Your task to perform on an android device: change keyboard looks Image 0: 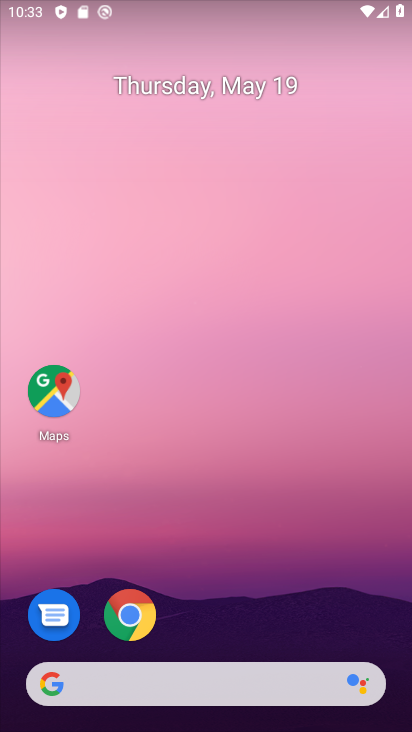
Step 0: click (218, 292)
Your task to perform on an android device: change keyboard looks Image 1: 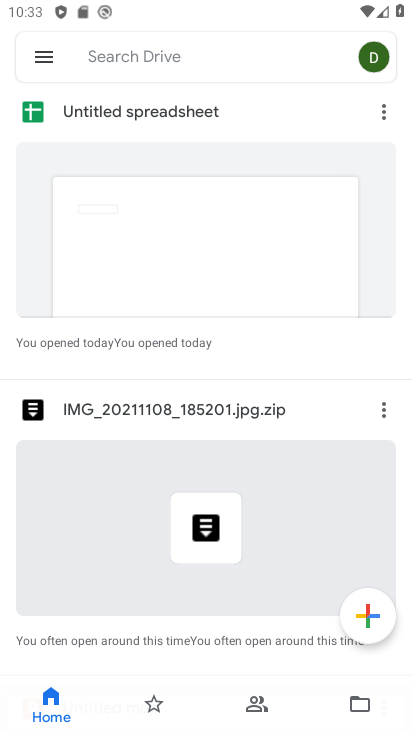
Step 1: press back button
Your task to perform on an android device: change keyboard looks Image 2: 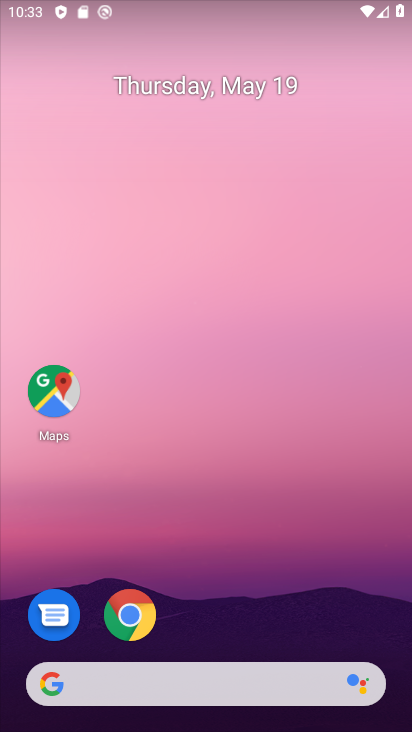
Step 2: drag from (290, 691) to (267, 317)
Your task to perform on an android device: change keyboard looks Image 3: 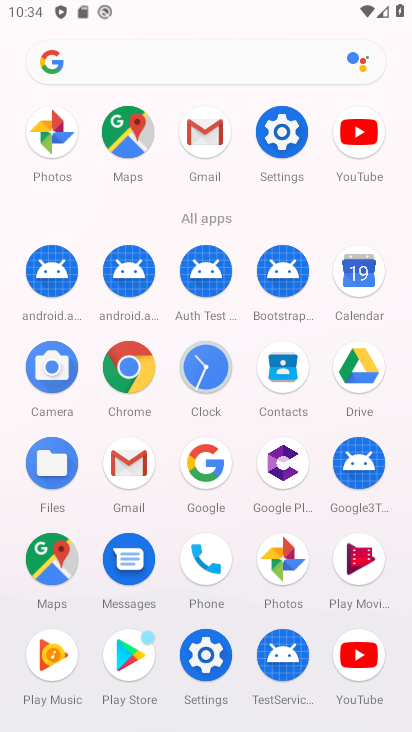
Step 3: click (270, 141)
Your task to perform on an android device: change keyboard looks Image 4: 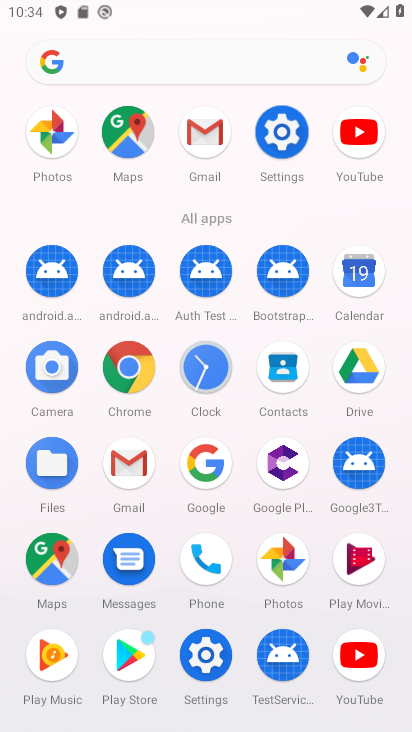
Step 4: click (271, 141)
Your task to perform on an android device: change keyboard looks Image 5: 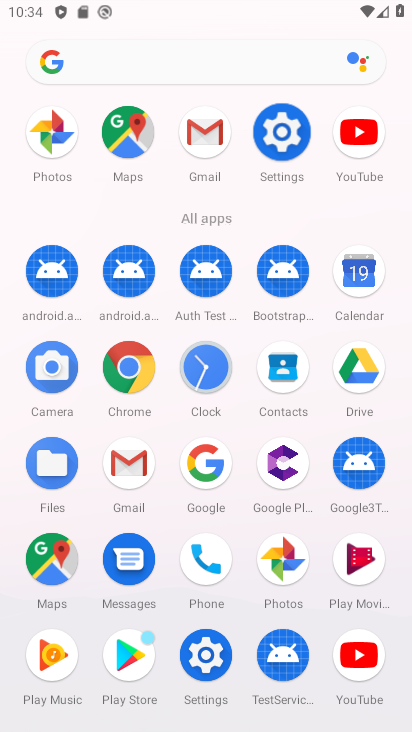
Step 5: click (272, 141)
Your task to perform on an android device: change keyboard looks Image 6: 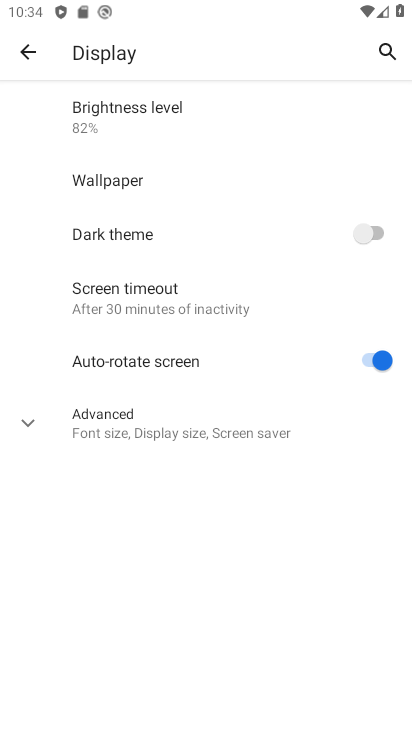
Step 6: click (28, 60)
Your task to perform on an android device: change keyboard looks Image 7: 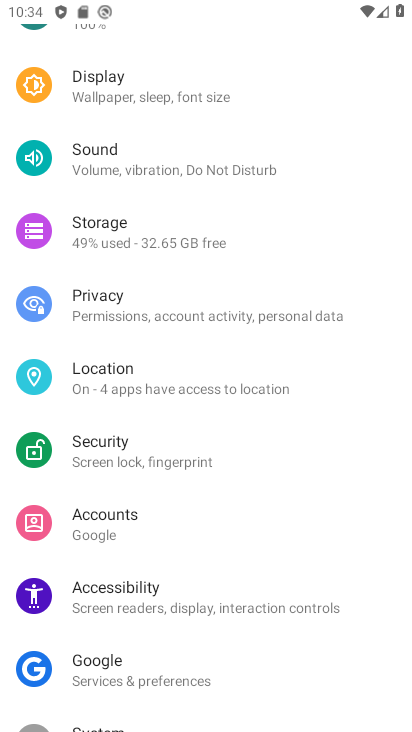
Step 7: drag from (120, 597) to (86, 20)
Your task to perform on an android device: change keyboard looks Image 8: 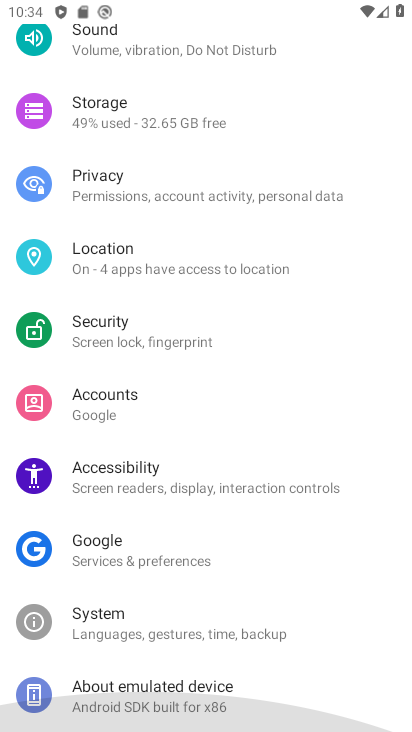
Step 8: drag from (136, 355) to (165, 28)
Your task to perform on an android device: change keyboard looks Image 9: 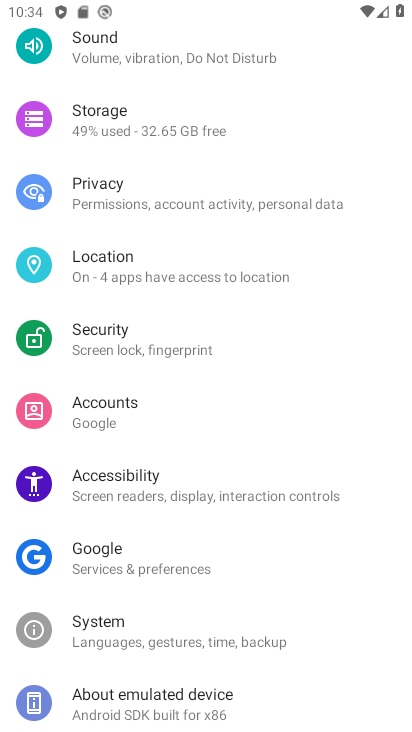
Step 9: click (128, 621)
Your task to perform on an android device: change keyboard looks Image 10: 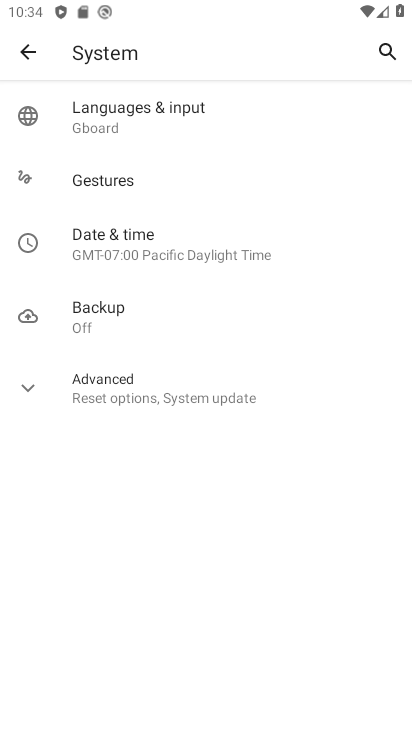
Step 10: click (106, 130)
Your task to perform on an android device: change keyboard looks Image 11: 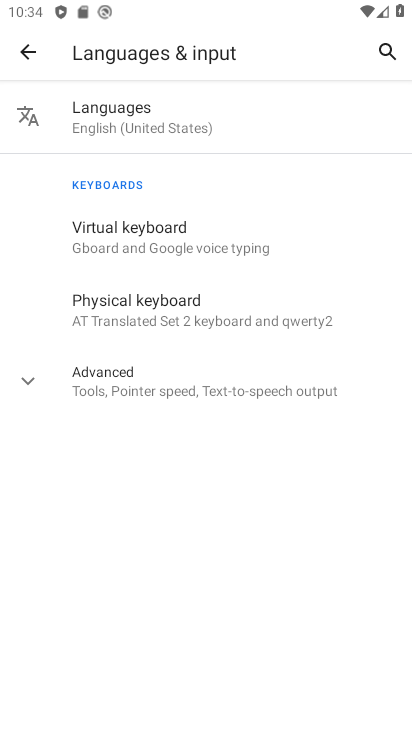
Step 11: click (104, 127)
Your task to perform on an android device: change keyboard looks Image 12: 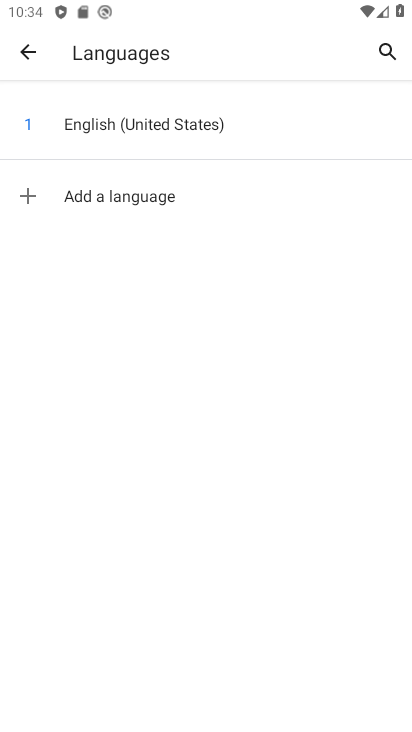
Step 12: click (22, 50)
Your task to perform on an android device: change keyboard looks Image 13: 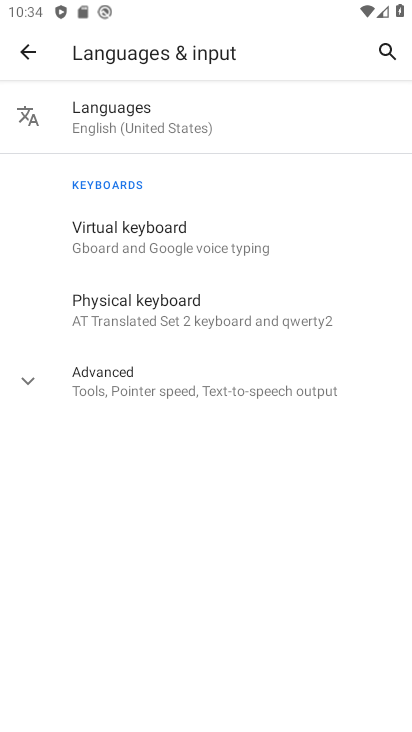
Step 13: click (125, 240)
Your task to perform on an android device: change keyboard looks Image 14: 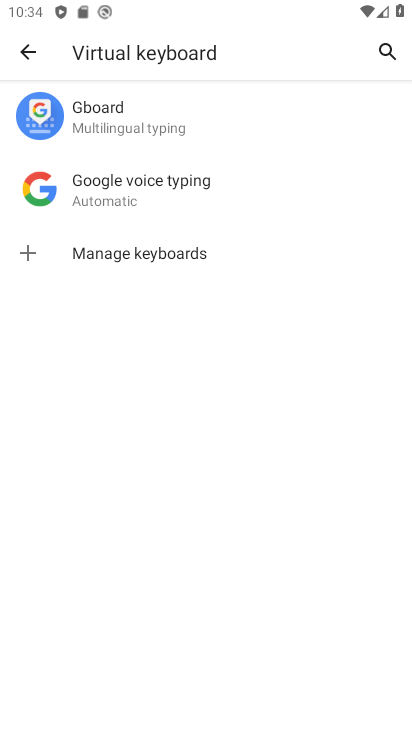
Step 14: click (105, 115)
Your task to perform on an android device: change keyboard looks Image 15: 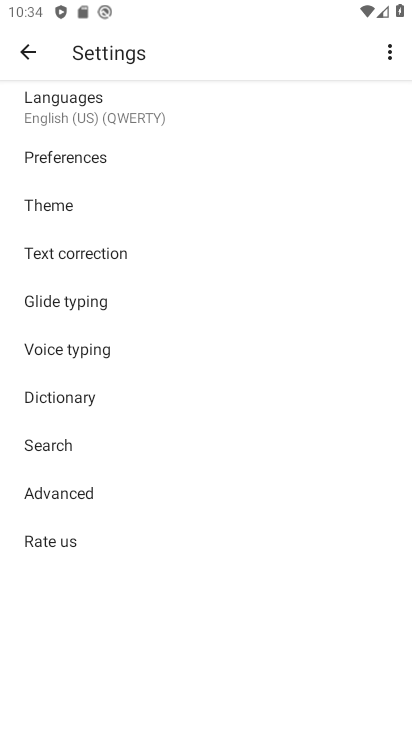
Step 15: click (46, 204)
Your task to perform on an android device: change keyboard looks Image 16: 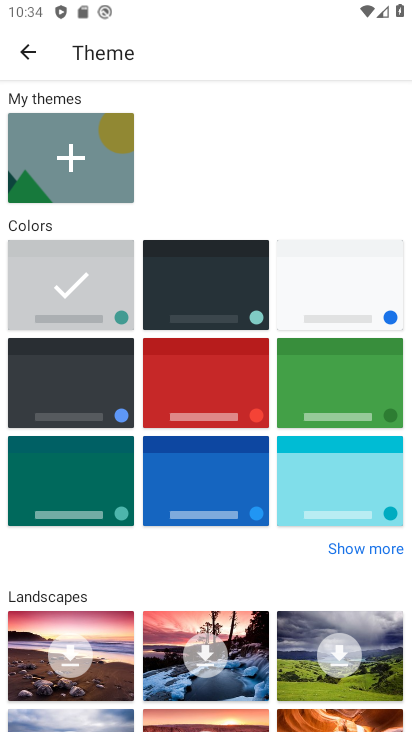
Step 16: click (86, 379)
Your task to perform on an android device: change keyboard looks Image 17: 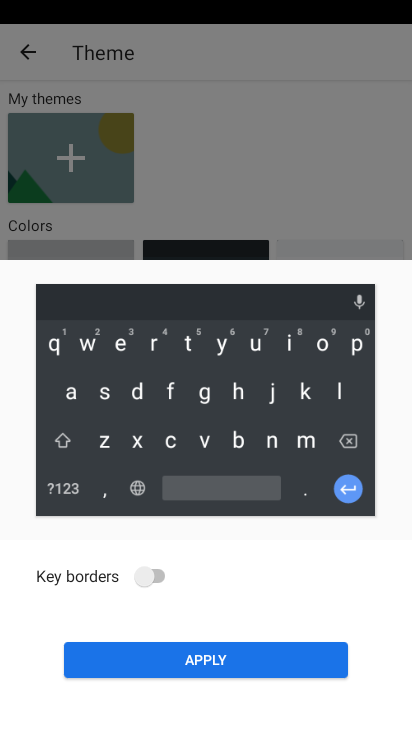
Step 17: click (222, 653)
Your task to perform on an android device: change keyboard looks Image 18: 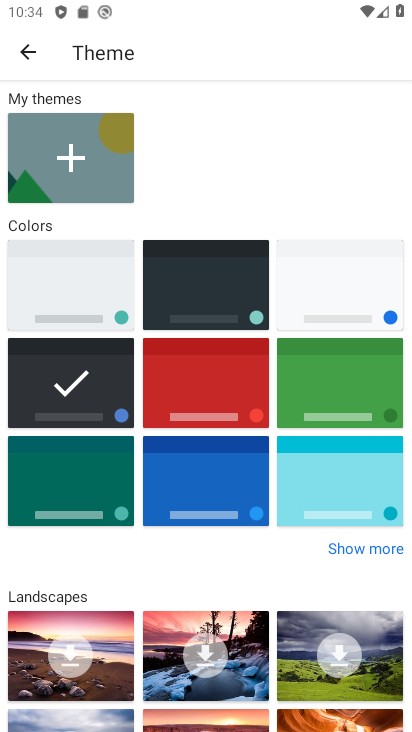
Step 18: task complete